Your task to perform on an android device: change the clock style Image 0: 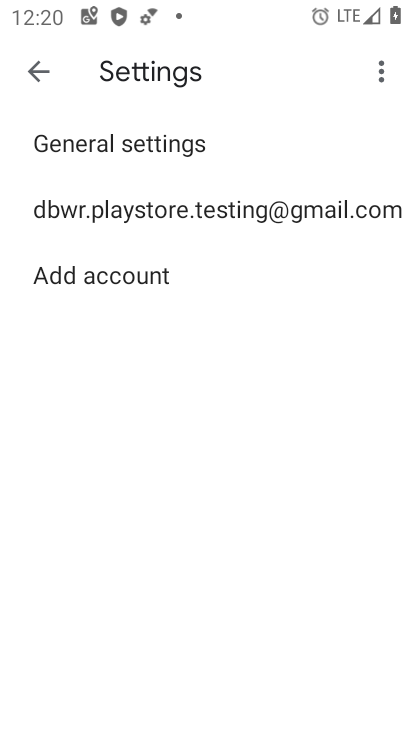
Step 0: press home button
Your task to perform on an android device: change the clock style Image 1: 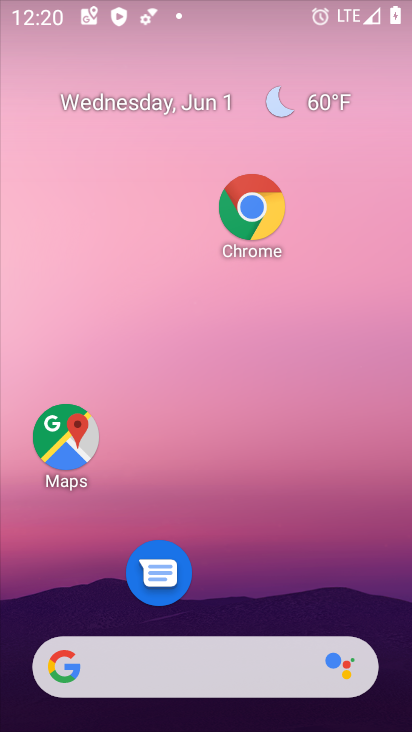
Step 1: drag from (208, 603) to (189, 221)
Your task to perform on an android device: change the clock style Image 2: 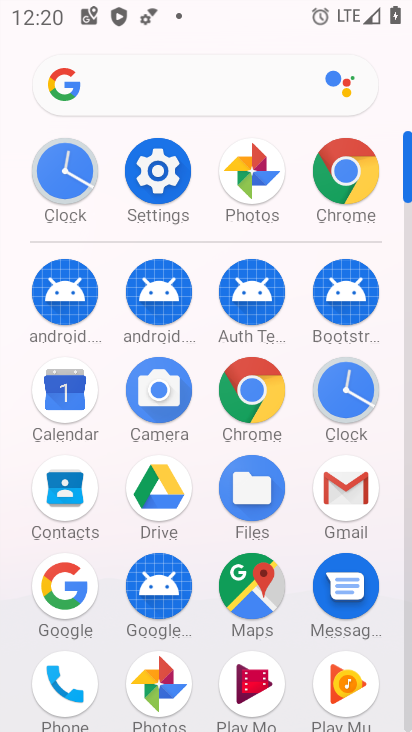
Step 2: click (345, 418)
Your task to perform on an android device: change the clock style Image 3: 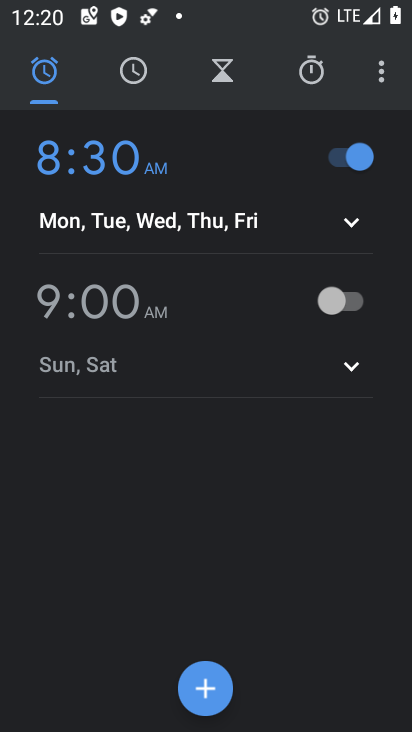
Step 3: drag from (376, 80) to (262, 132)
Your task to perform on an android device: change the clock style Image 4: 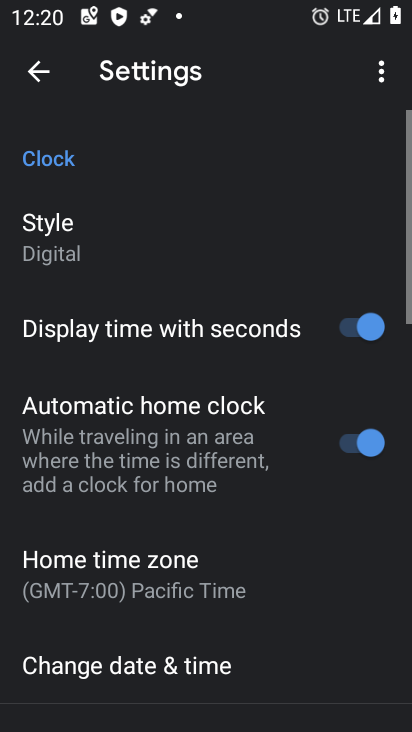
Step 4: click (103, 237)
Your task to perform on an android device: change the clock style Image 5: 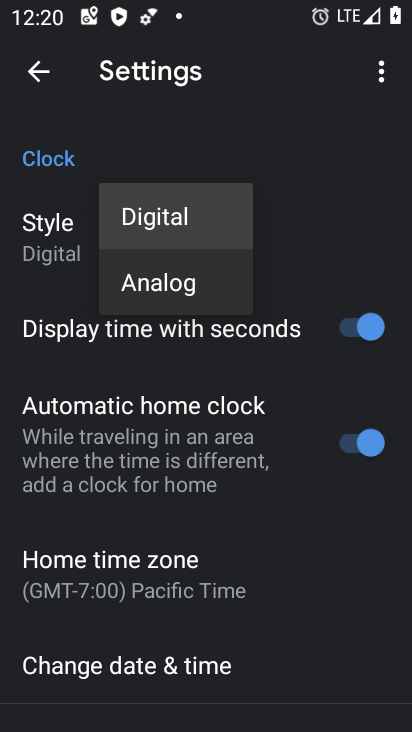
Step 5: click (141, 295)
Your task to perform on an android device: change the clock style Image 6: 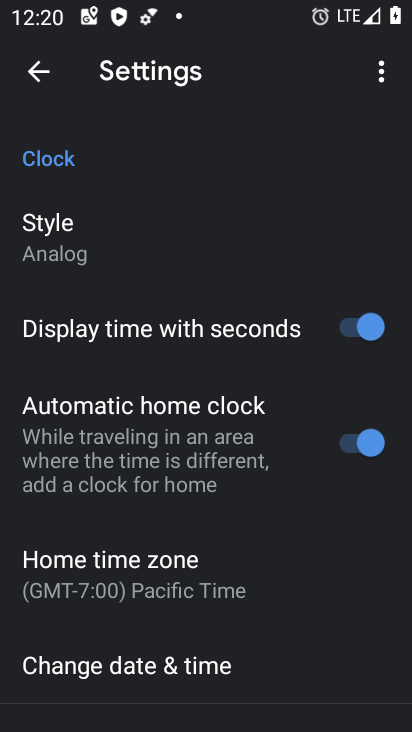
Step 6: task complete